Your task to perform on an android device: manage bookmarks in the chrome app Image 0: 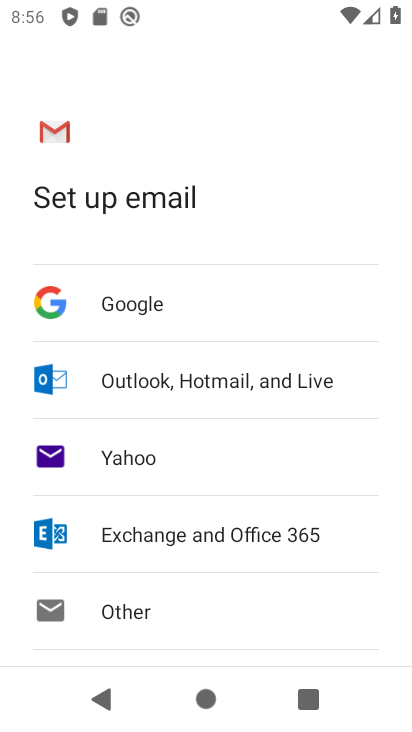
Step 0: press home button
Your task to perform on an android device: manage bookmarks in the chrome app Image 1: 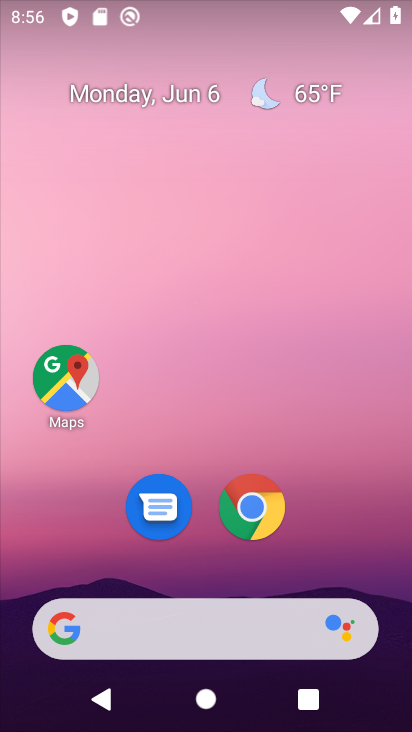
Step 1: click (242, 503)
Your task to perform on an android device: manage bookmarks in the chrome app Image 2: 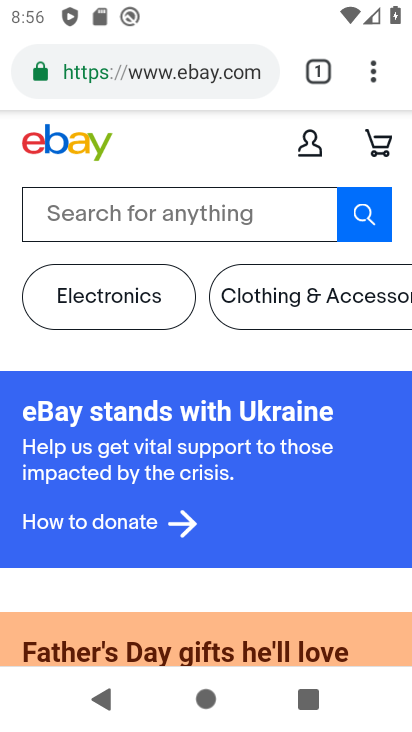
Step 2: click (381, 68)
Your task to perform on an android device: manage bookmarks in the chrome app Image 3: 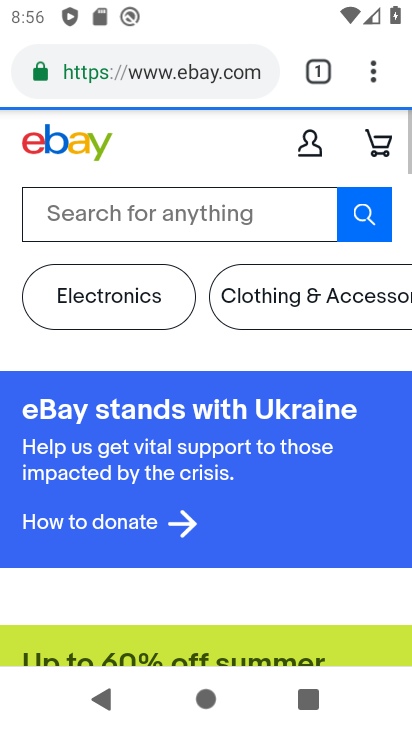
Step 3: click (363, 64)
Your task to perform on an android device: manage bookmarks in the chrome app Image 4: 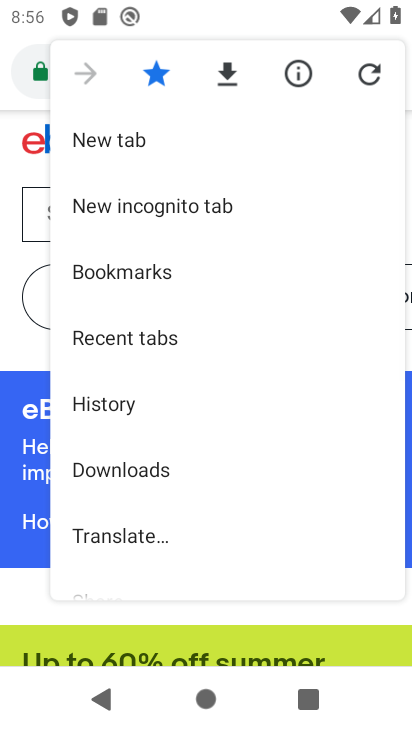
Step 4: click (132, 281)
Your task to perform on an android device: manage bookmarks in the chrome app Image 5: 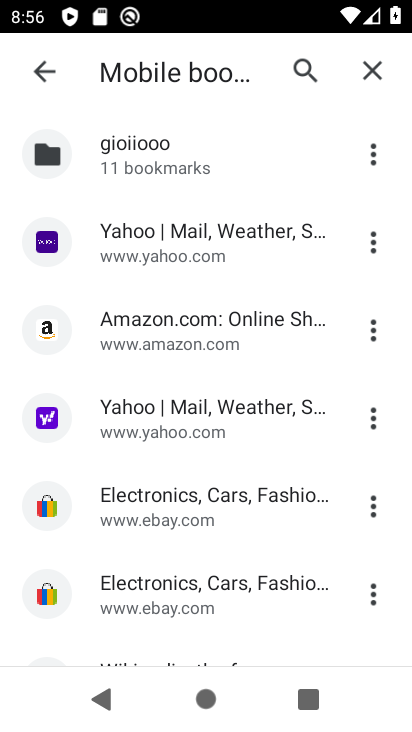
Step 5: click (142, 253)
Your task to perform on an android device: manage bookmarks in the chrome app Image 6: 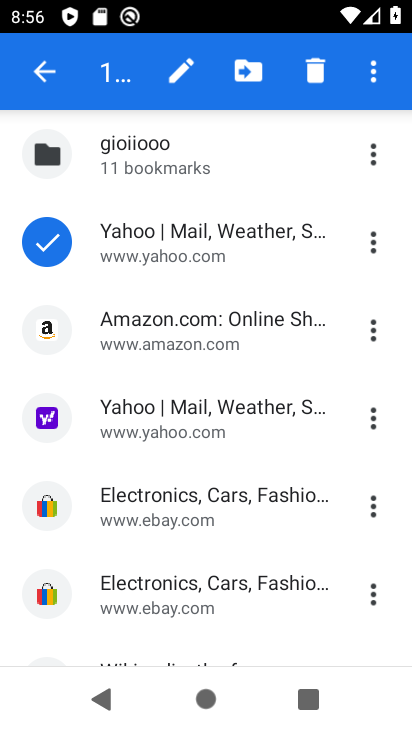
Step 6: click (247, 67)
Your task to perform on an android device: manage bookmarks in the chrome app Image 7: 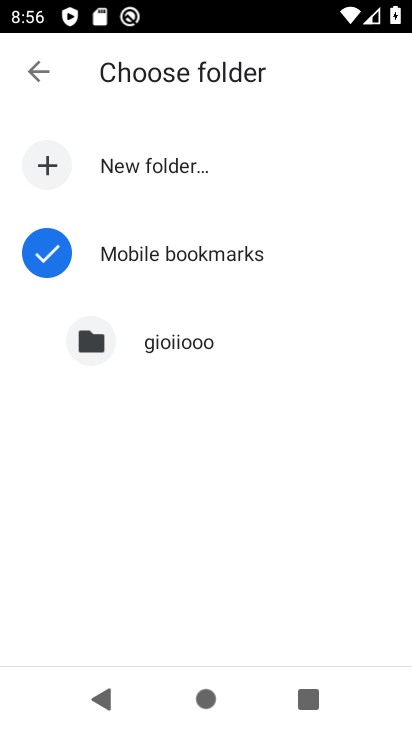
Step 7: click (164, 339)
Your task to perform on an android device: manage bookmarks in the chrome app Image 8: 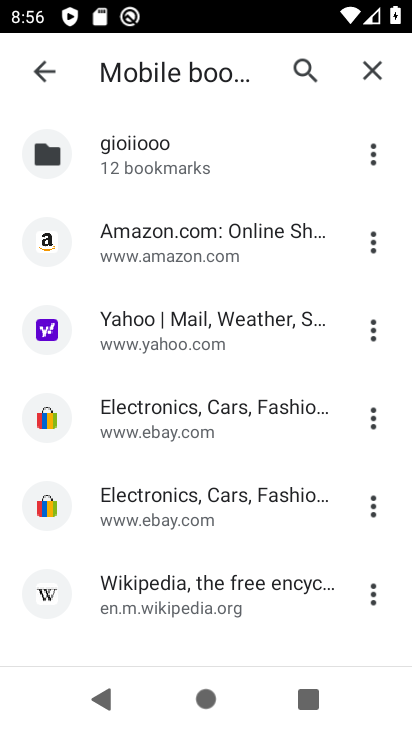
Step 8: task complete